Your task to perform on an android device: turn on the 12-hour format for clock Image 0: 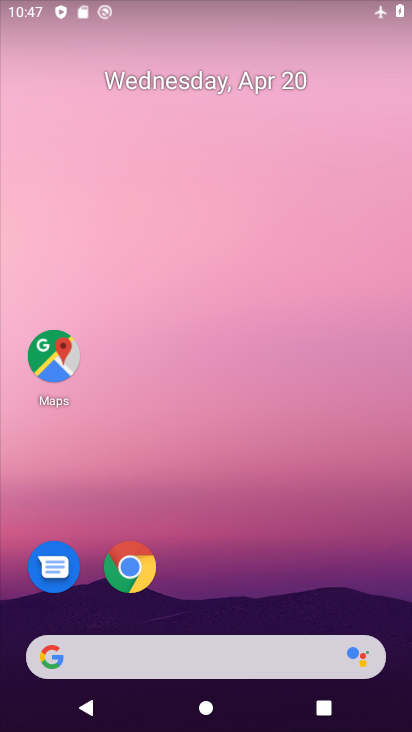
Step 0: drag from (255, 579) to (294, 216)
Your task to perform on an android device: turn on the 12-hour format for clock Image 1: 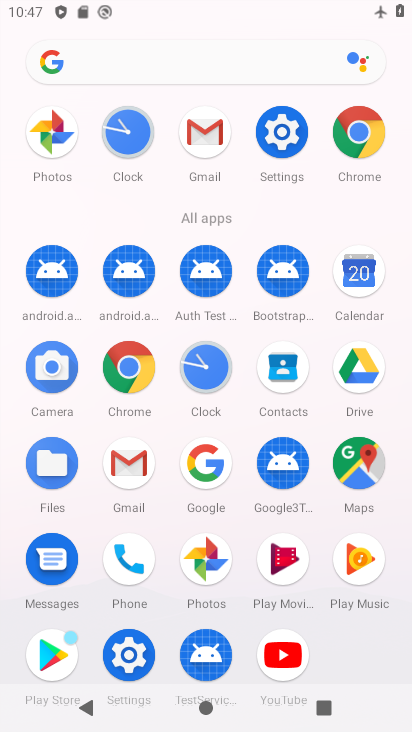
Step 1: click (199, 360)
Your task to perform on an android device: turn on the 12-hour format for clock Image 2: 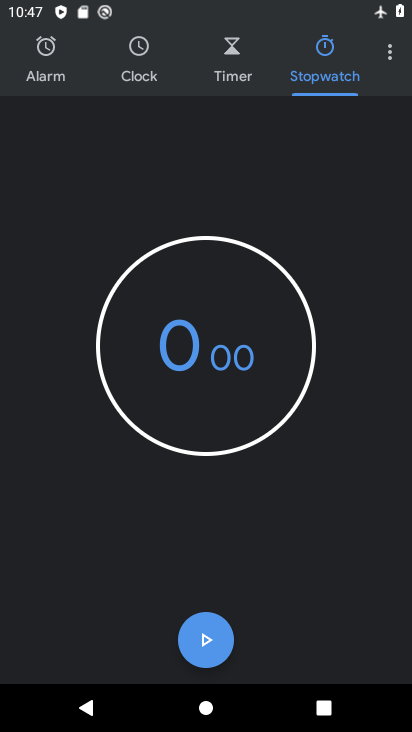
Step 2: click (382, 45)
Your task to perform on an android device: turn on the 12-hour format for clock Image 3: 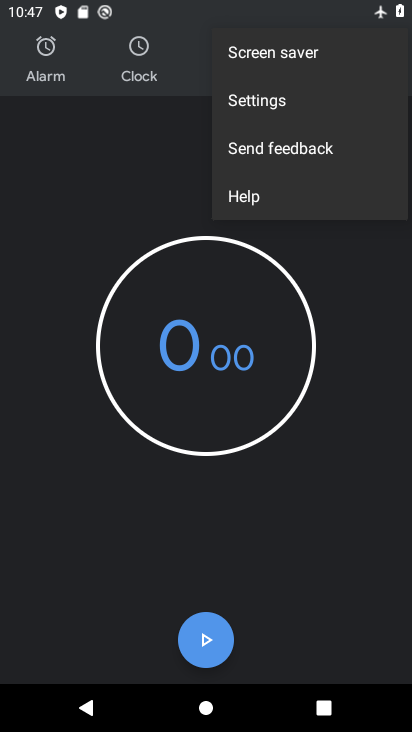
Step 3: click (300, 98)
Your task to perform on an android device: turn on the 12-hour format for clock Image 4: 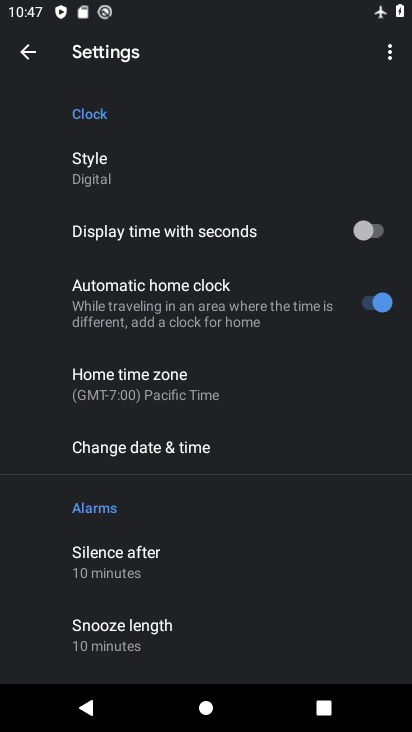
Step 4: drag from (224, 511) to (326, 59)
Your task to perform on an android device: turn on the 12-hour format for clock Image 5: 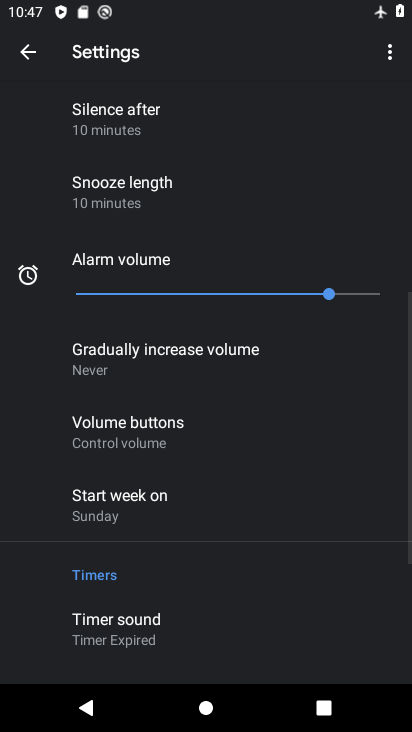
Step 5: drag from (255, 90) to (196, 675)
Your task to perform on an android device: turn on the 12-hour format for clock Image 6: 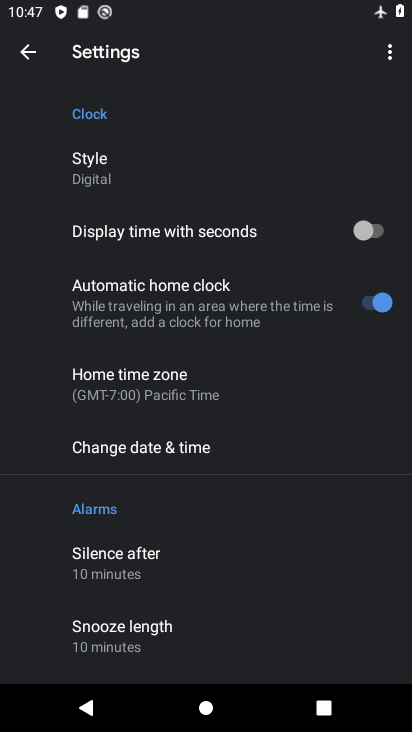
Step 6: click (178, 439)
Your task to perform on an android device: turn on the 12-hour format for clock Image 7: 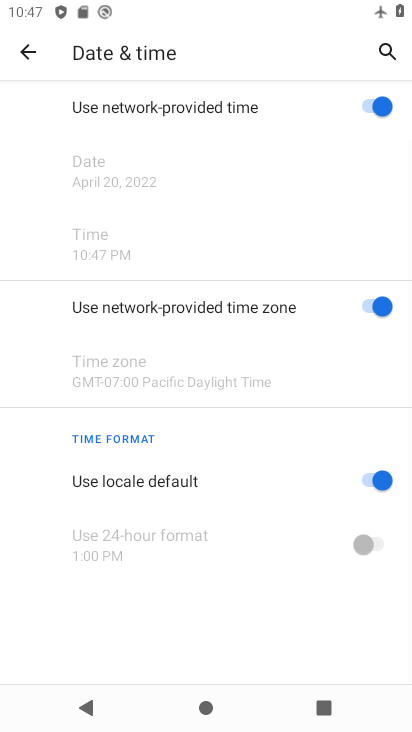
Step 7: drag from (207, 585) to (262, 313)
Your task to perform on an android device: turn on the 12-hour format for clock Image 8: 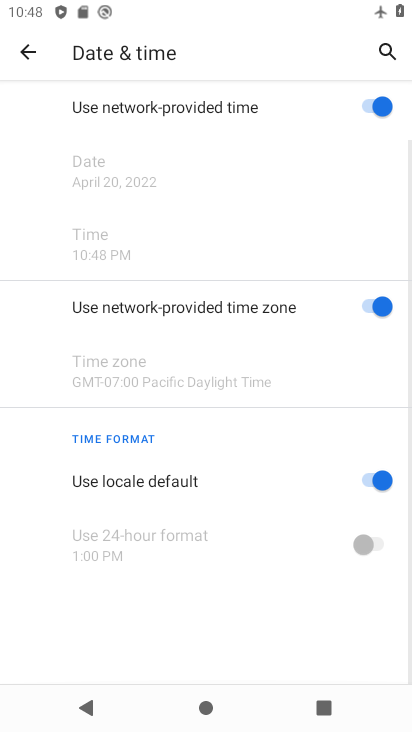
Step 8: click (371, 479)
Your task to perform on an android device: turn on the 12-hour format for clock Image 9: 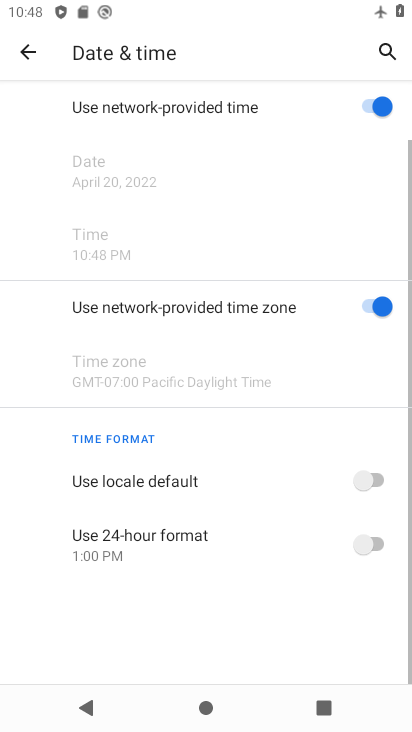
Step 9: click (384, 538)
Your task to perform on an android device: turn on the 12-hour format for clock Image 10: 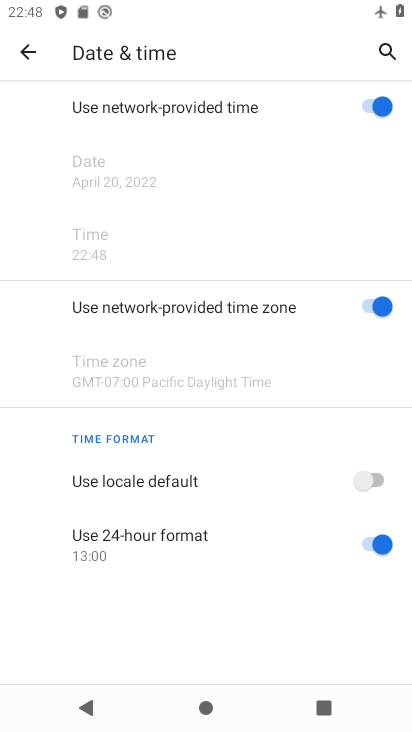
Step 10: task complete